Your task to perform on an android device: change the upload size in google photos Image 0: 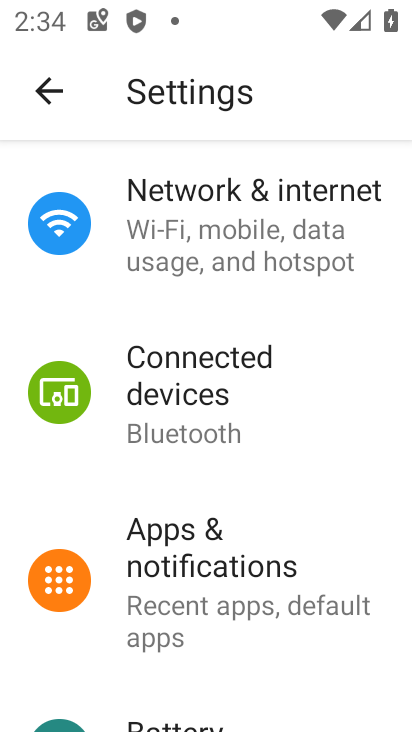
Step 0: press back button
Your task to perform on an android device: change the upload size in google photos Image 1: 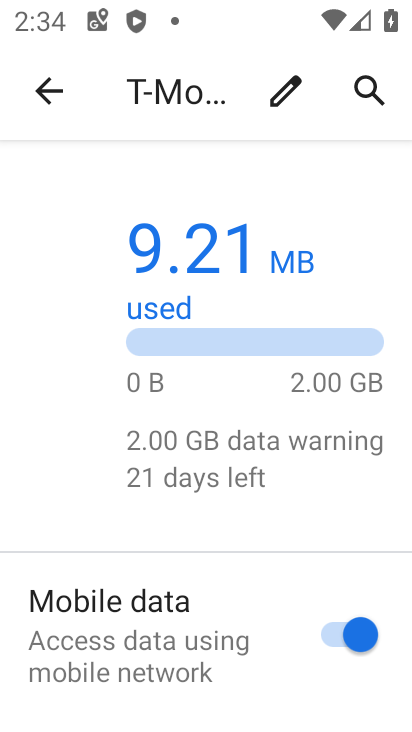
Step 1: press home button
Your task to perform on an android device: change the upload size in google photos Image 2: 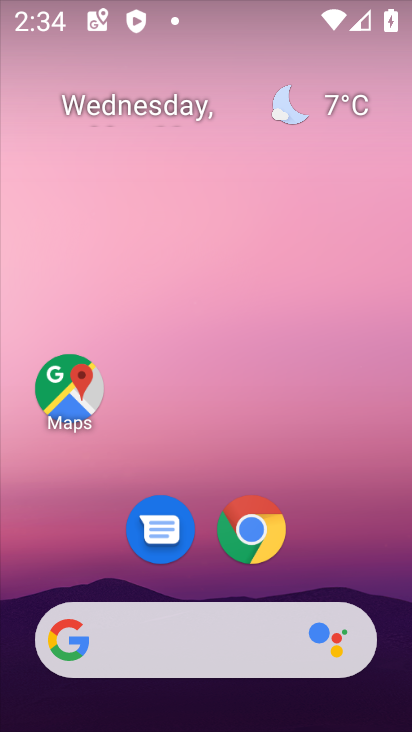
Step 2: drag from (36, 570) to (320, 206)
Your task to perform on an android device: change the upload size in google photos Image 3: 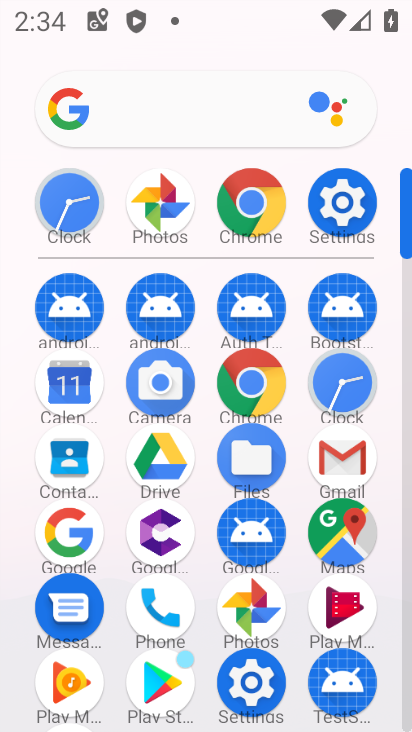
Step 3: click (239, 611)
Your task to perform on an android device: change the upload size in google photos Image 4: 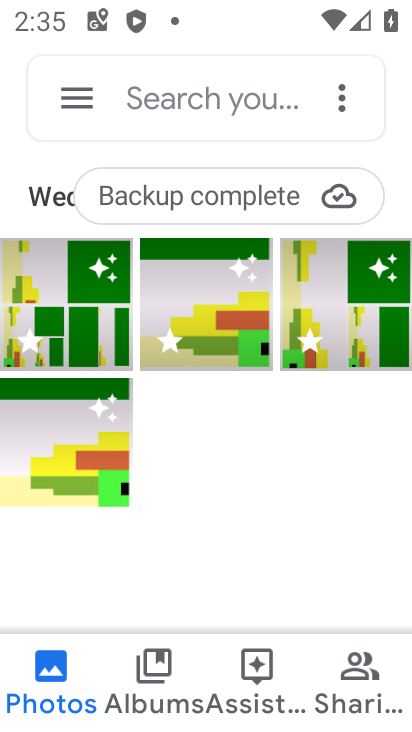
Step 4: click (69, 89)
Your task to perform on an android device: change the upload size in google photos Image 5: 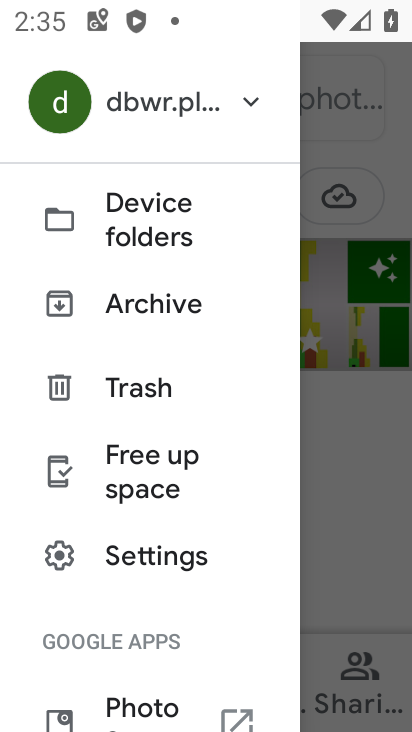
Step 5: drag from (122, 679) to (203, 235)
Your task to perform on an android device: change the upload size in google photos Image 6: 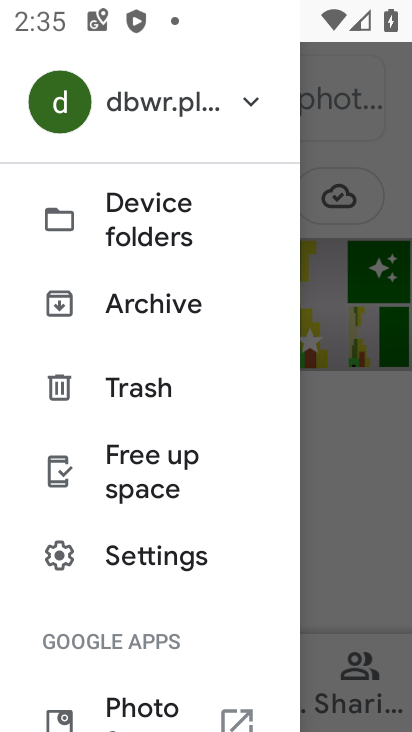
Step 6: click (123, 563)
Your task to perform on an android device: change the upload size in google photos Image 7: 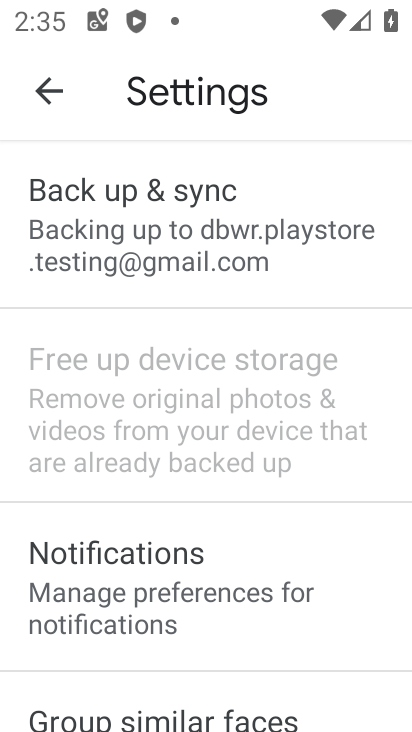
Step 7: click (186, 265)
Your task to perform on an android device: change the upload size in google photos Image 8: 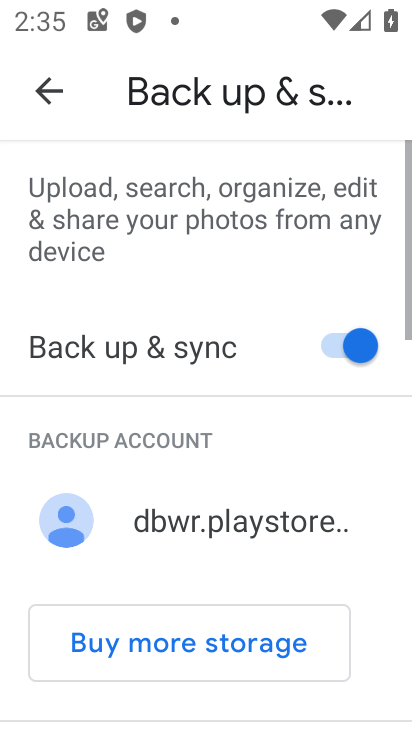
Step 8: drag from (107, 560) to (271, 285)
Your task to perform on an android device: change the upload size in google photos Image 9: 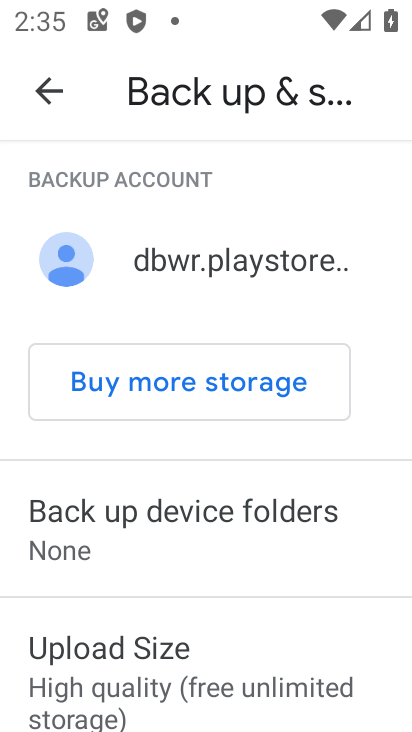
Step 9: click (125, 652)
Your task to perform on an android device: change the upload size in google photos Image 10: 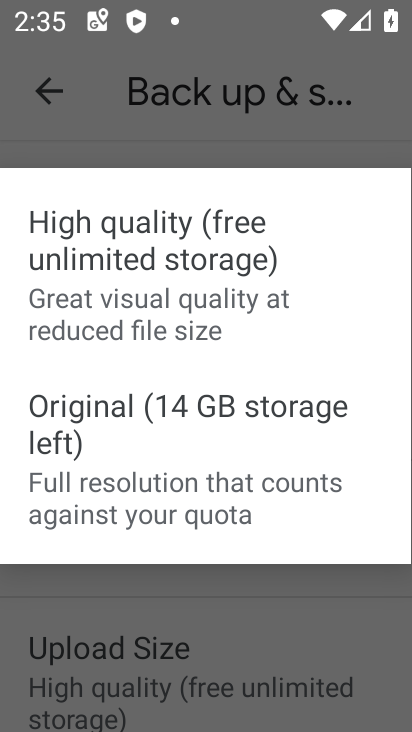
Step 10: click (133, 436)
Your task to perform on an android device: change the upload size in google photos Image 11: 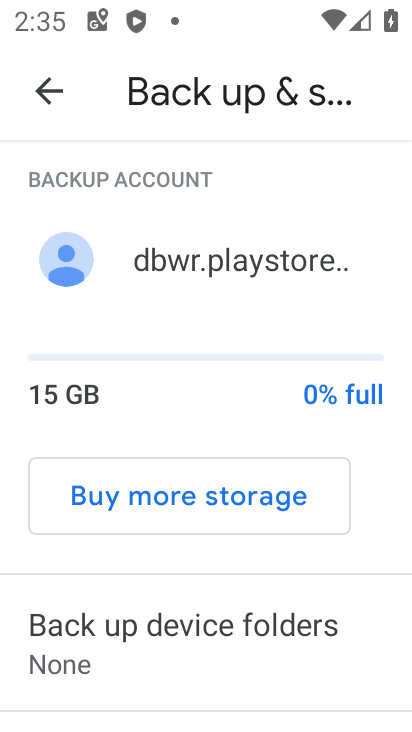
Step 11: task complete